Your task to perform on an android device: Go to Maps Image 0: 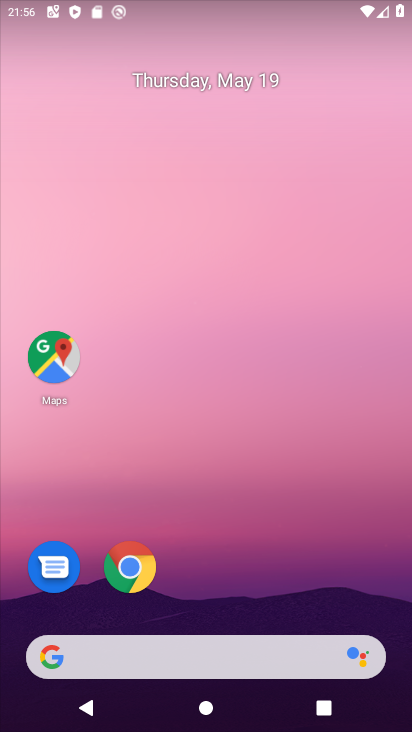
Step 0: drag from (221, 599) to (214, 11)
Your task to perform on an android device: Go to Maps Image 1: 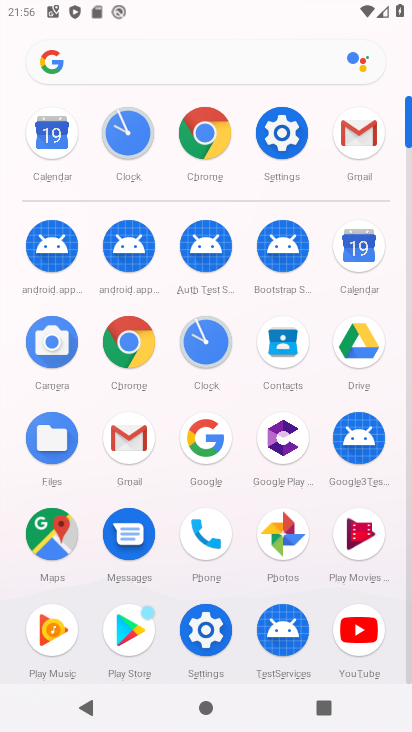
Step 1: click (51, 528)
Your task to perform on an android device: Go to Maps Image 2: 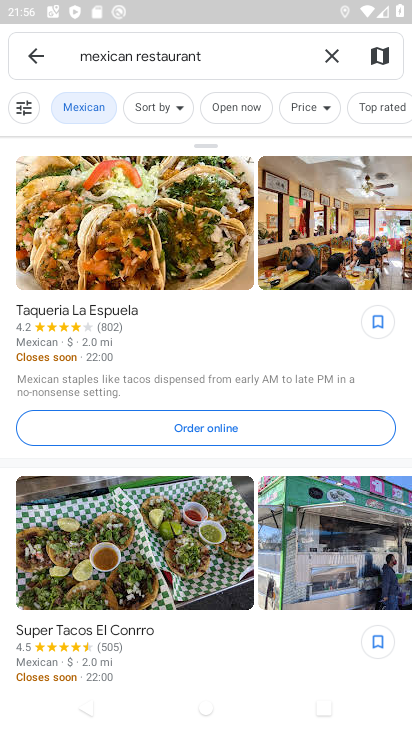
Step 2: click (40, 56)
Your task to perform on an android device: Go to Maps Image 3: 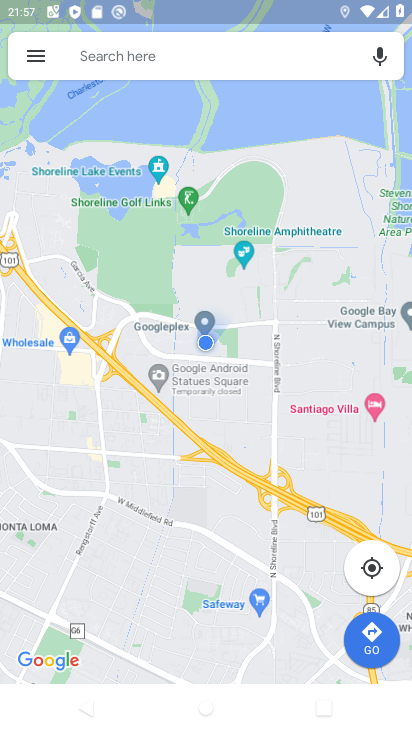
Step 3: task complete